Your task to perform on an android device: add a label to a message in the gmail app Image 0: 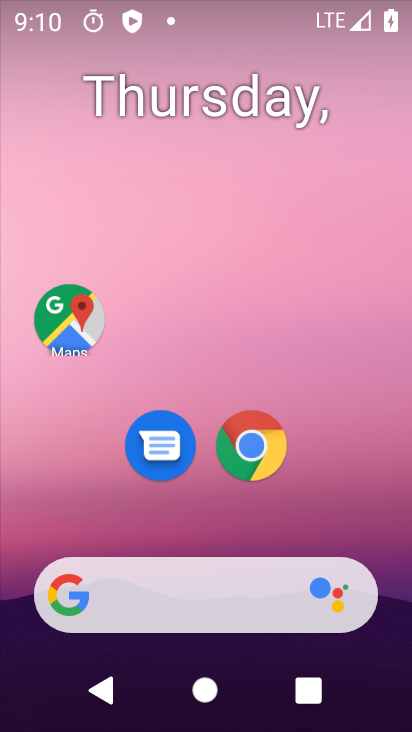
Step 0: drag from (377, 510) to (363, 13)
Your task to perform on an android device: add a label to a message in the gmail app Image 1: 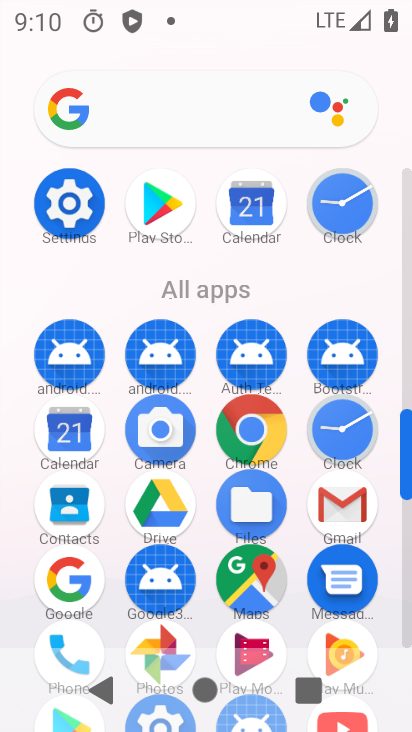
Step 1: click (342, 506)
Your task to perform on an android device: add a label to a message in the gmail app Image 2: 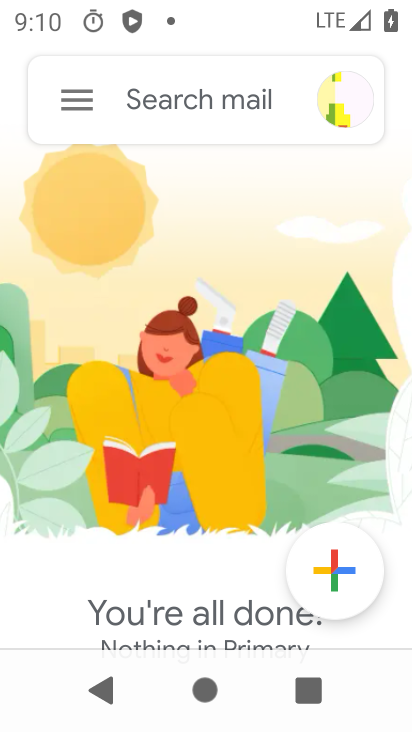
Step 2: click (84, 104)
Your task to perform on an android device: add a label to a message in the gmail app Image 3: 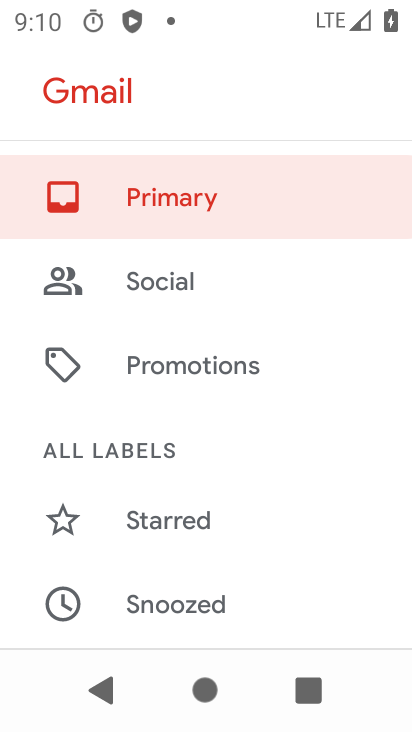
Step 3: drag from (219, 493) to (204, 76)
Your task to perform on an android device: add a label to a message in the gmail app Image 4: 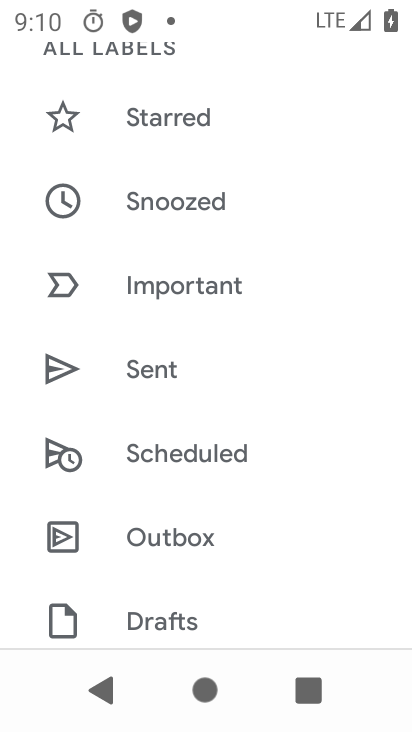
Step 4: drag from (172, 487) to (180, 147)
Your task to perform on an android device: add a label to a message in the gmail app Image 5: 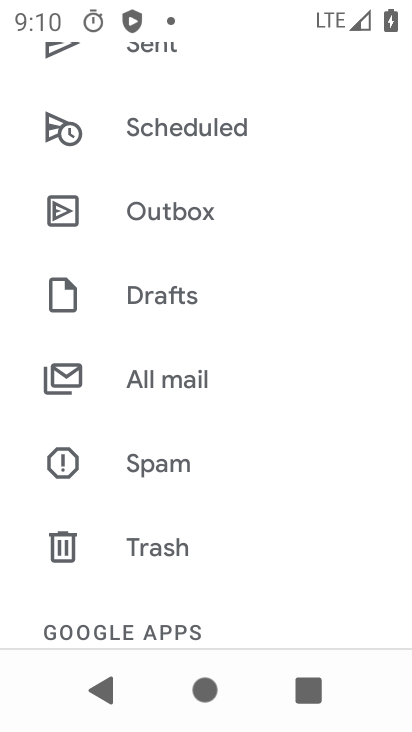
Step 5: click (177, 385)
Your task to perform on an android device: add a label to a message in the gmail app Image 6: 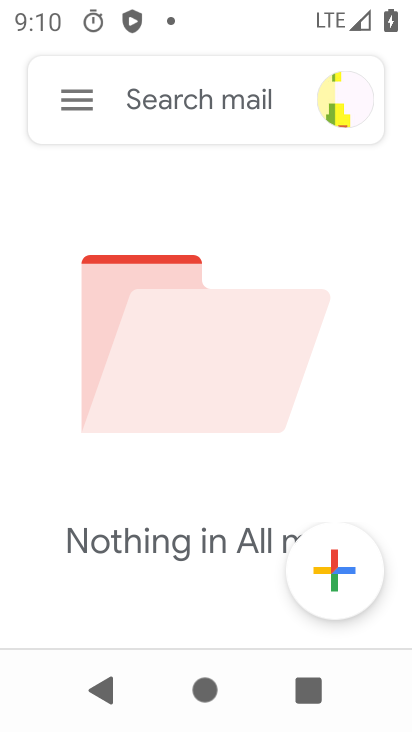
Step 6: task complete